Your task to perform on an android device: manage bookmarks in the chrome app Image 0: 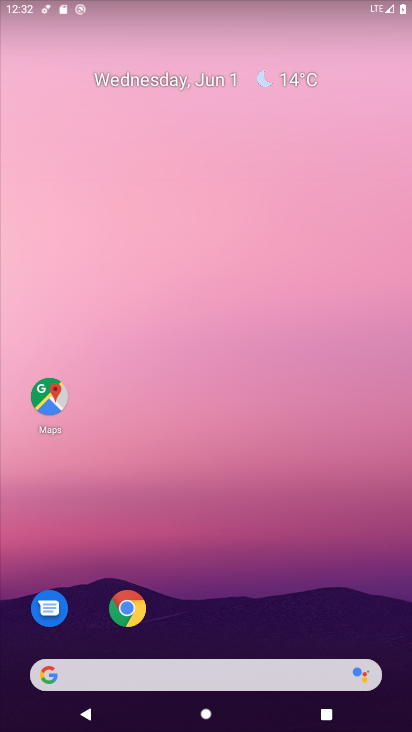
Step 0: click (136, 610)
Your task to perform on an android device: manage bookmarks in the chrome app Image 1: 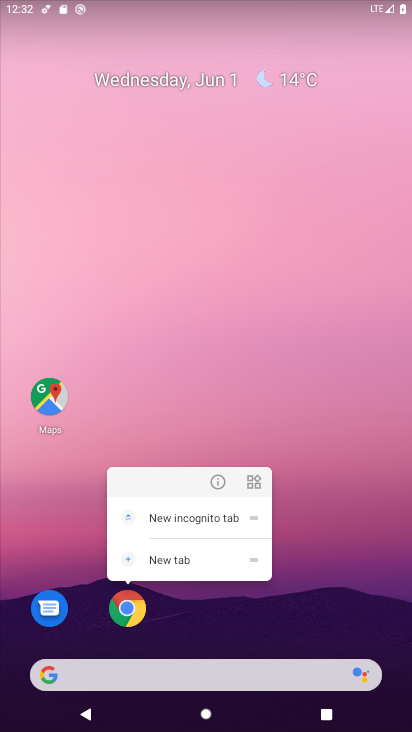
Step 1: click (136, 610)
Your task to perform on an android device: manage bookmarks in the chrome app Image 2: 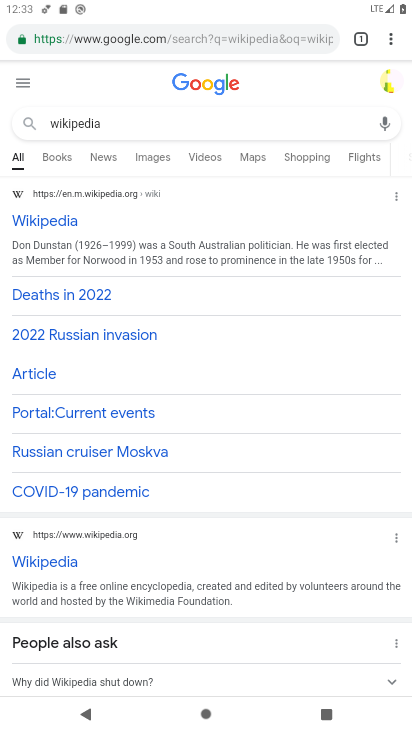
Step 2: click (396, 35)
Your task to perform on an android device: manage bookmarks in the chrome app Image 3: 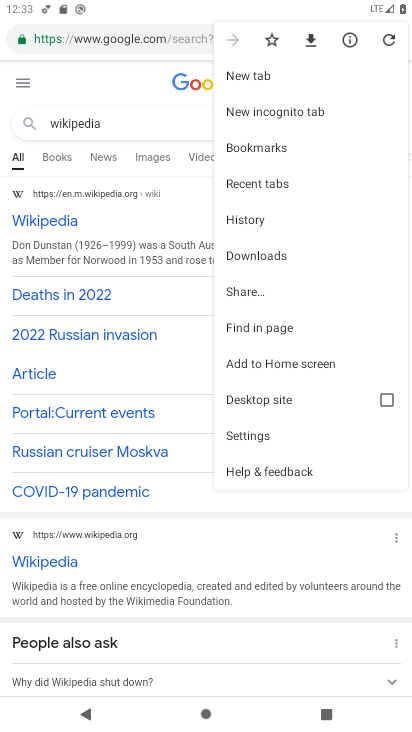
Step 3: click (269, 149)
Your task to perform on an android device: manage bookmarks in the chrome app Image 4: 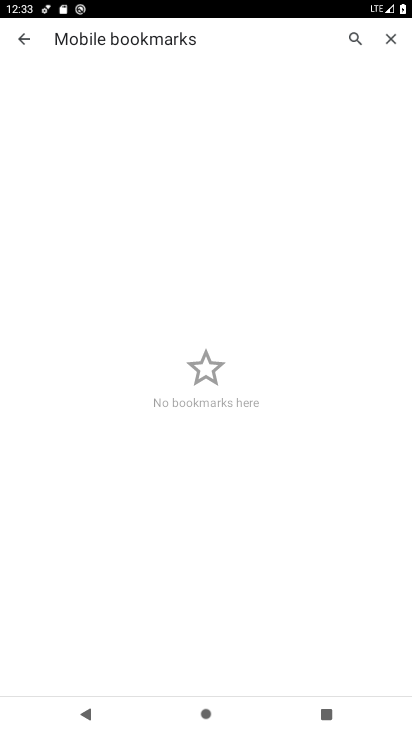
Step 4: task complete